Your task to perform on an android device: What's a good restaurant in Boston? Image 0: 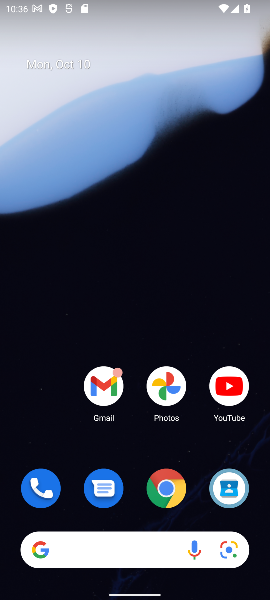
Step 0: drag from (143, 524) to (103, 8)
Your task to perform on an android device: What's a good restaurant in Boston? Image 1: 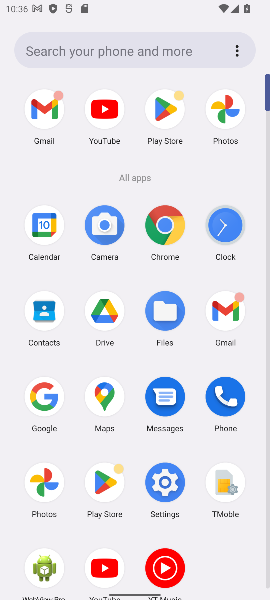
Step 1: click (161, 228)
Your task to perform on an android device: What's a good restaurant in Boston? Image 2: 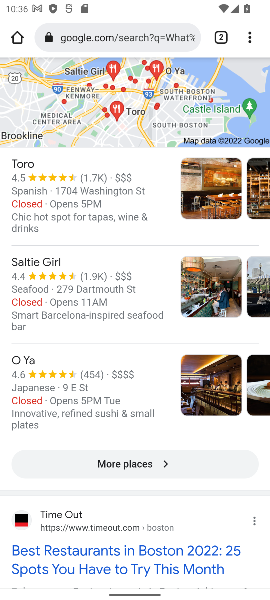
Step 2: task complete